Your task to perform on an android device: Go to Reddit.com Image 0: 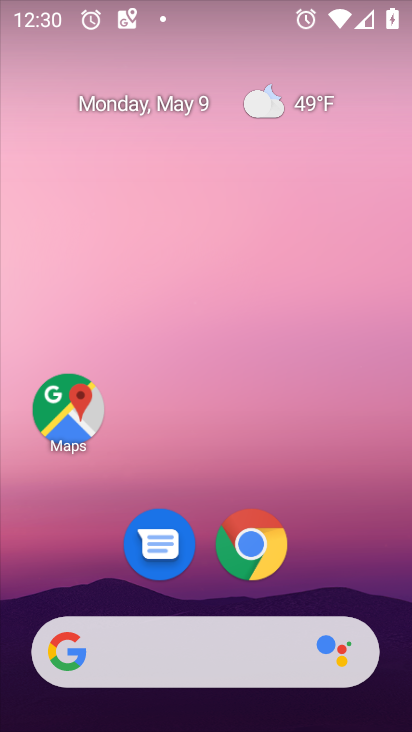
Step 0: click (406, 503)
Your task to perform on an android device: Go to Reddit.com Image 1: 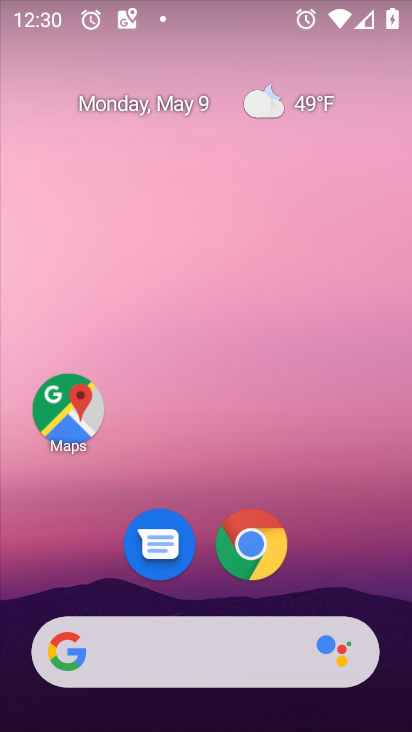
Step 1: click (260, 571)
Your task to perform on an android device: Go to Reddit.com Image 2: 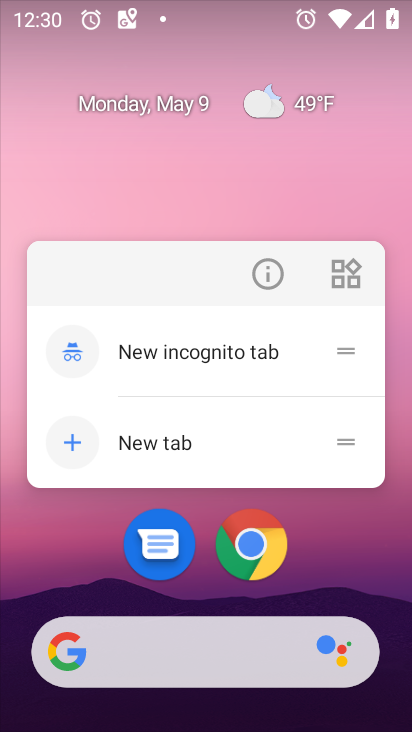
Step 2: click (257, 531)
Your task to perform on an android device: Go to Reddit.com Image 3: 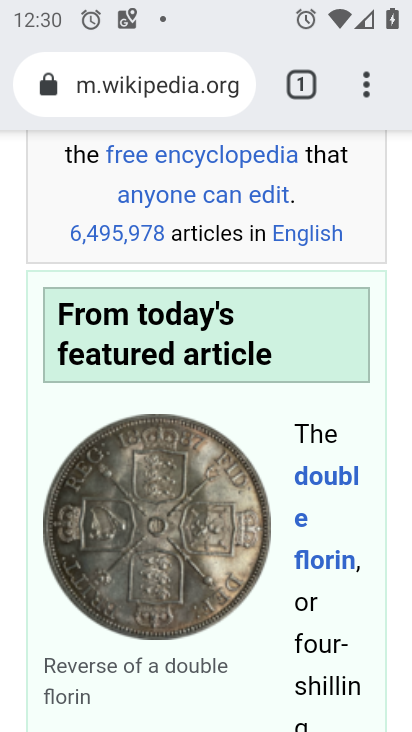
Step 3: click (160, 101)
Your task to perform on an android device: Go to Reddit.com Image 4: 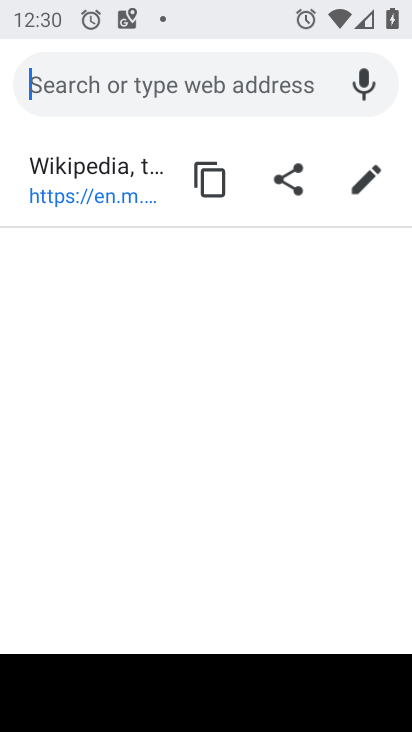
Step 4: type "reddit.com"
Your task to perform on an android device: Go to Reddit.com Image 5: 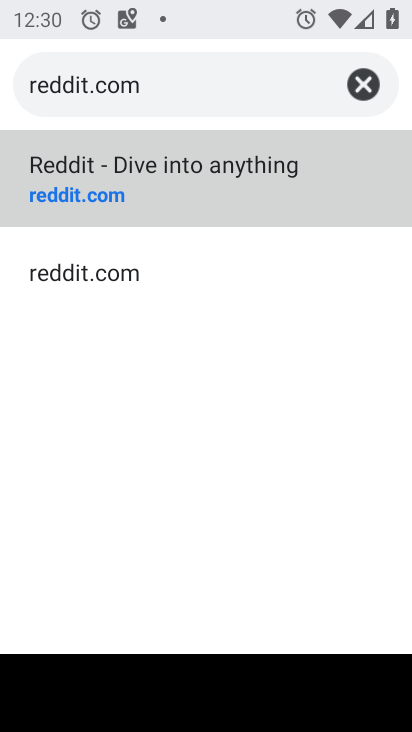
Step 5: click (145, 169)
Your task to perform on an android device: Go to Reddit.com Image 6: 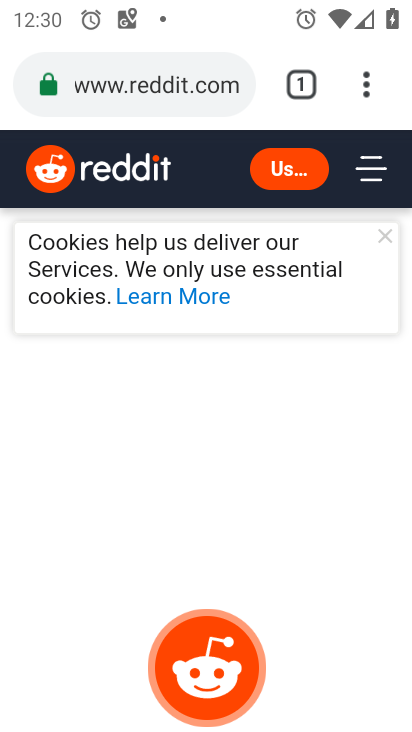
Step 6: task complete